Your task to perform on an android device: change timer sound Image 0: 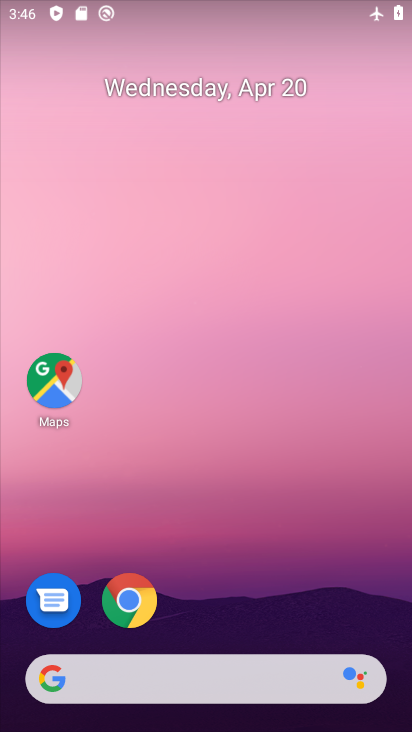
Step 0: press home button
Your task to perform on an android device: change timer sound Image 1: 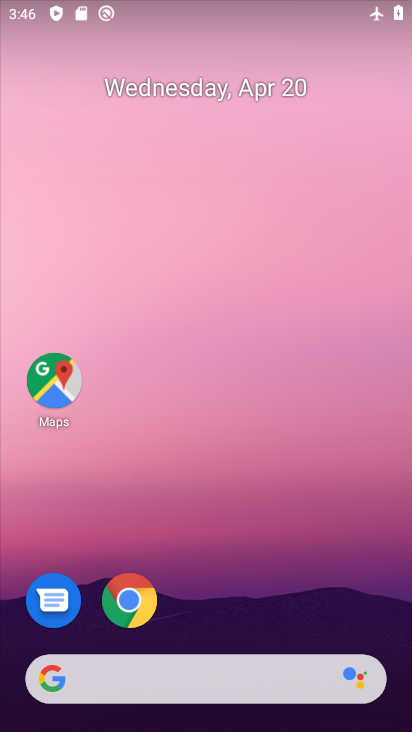
Step 1: drag from (225, 627) to (306, 10)
Your task to perform on an android device: change timer sound Image 2: 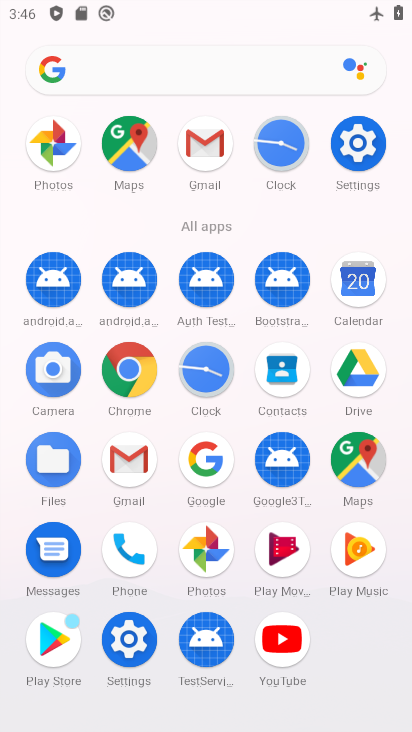
Step 2: click (211, 361)
Your task to perform on an android device: change timer sound Image 3: 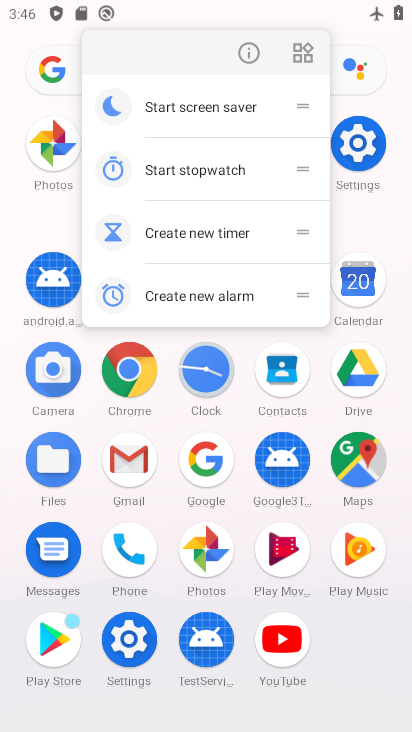
Step 3: click (205, 361)
Your task to perform on an android device: change timer sound Image 4: 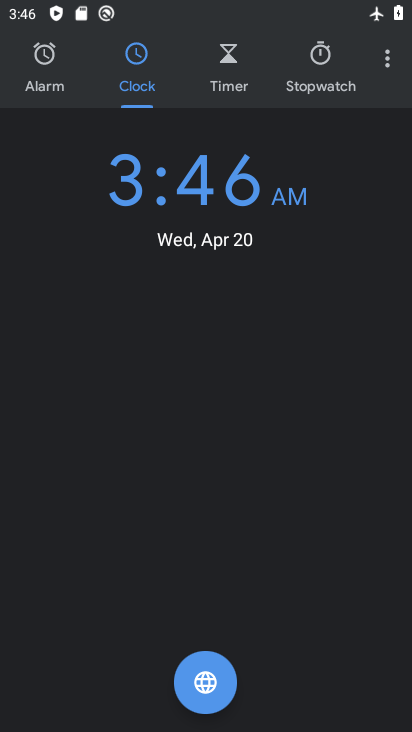
Step 4: click (385, 54)
Your task to perform on an android device: change timer sound Image 5: 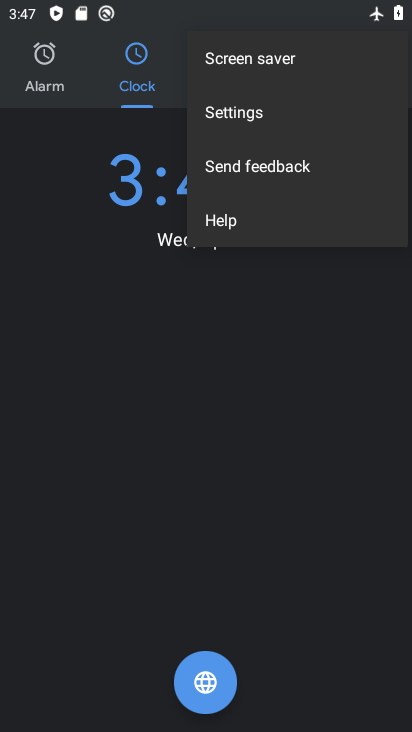
Step 5: click (276, 117)
Your task to perform on an android device: change timer sound Image 6: 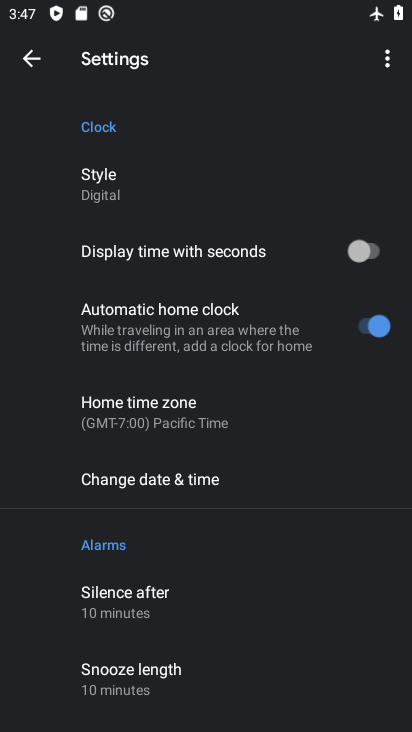
Step 6: drag from (213, 650) to (260, 204)
Your task to perform on an android device: change timer sound Image 7: 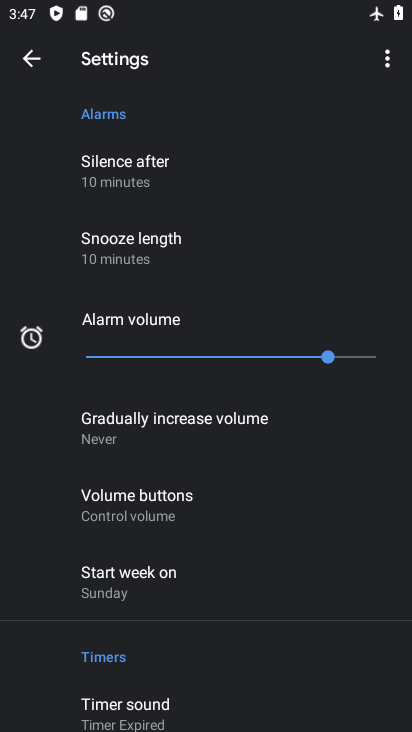
Step 7: click (187, 701)
Your task to perform on an android device: change timer sound Image 8: 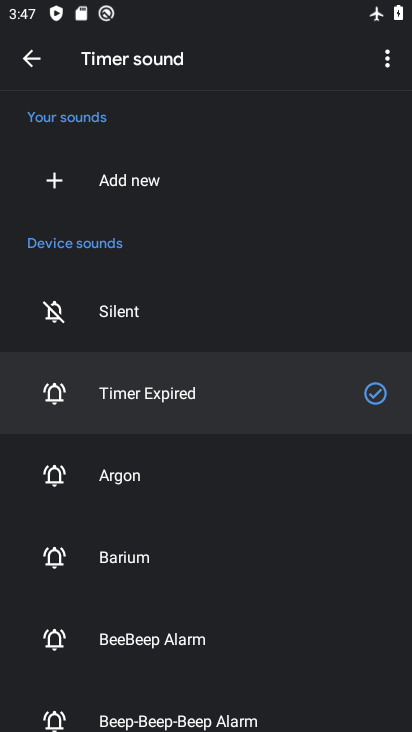
Step 8: click (221, 637)
Your task to perform on an android device: change timer sound Image 9: 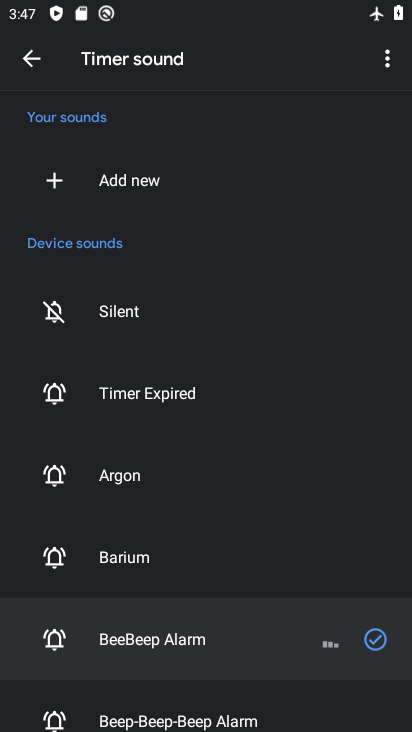
Step 9: task complete